Your task to perform on an android device: Toggle the flashlight Image 0: 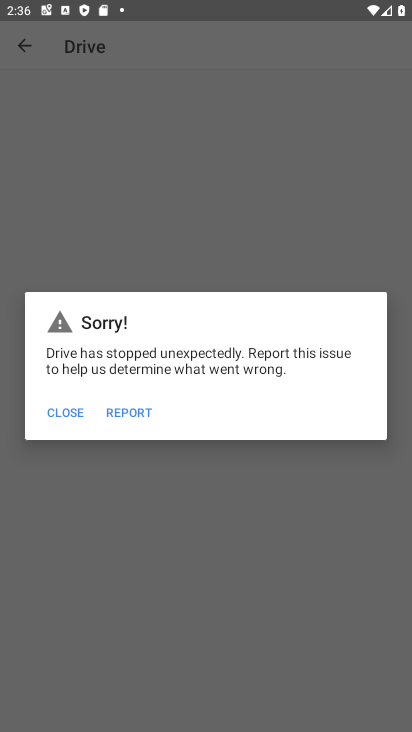
Step 0: press home button
Your task to perform on an android device: Toggle the flashlight Image 1: 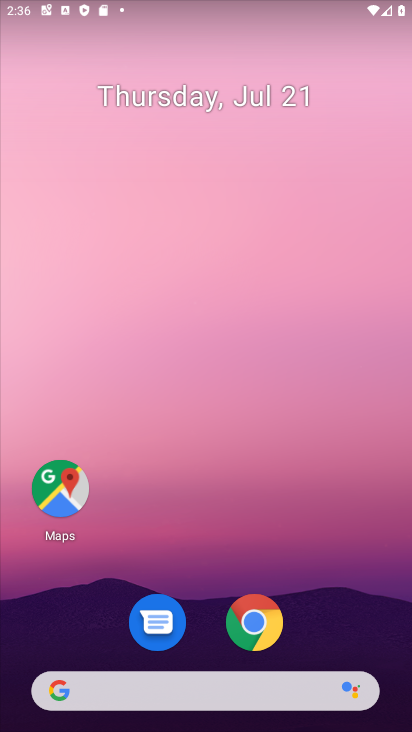
Step 1: drag from (261, 673) to (265, 61)
Your task to perform on an android device: Toggle the flashlight Image 2: 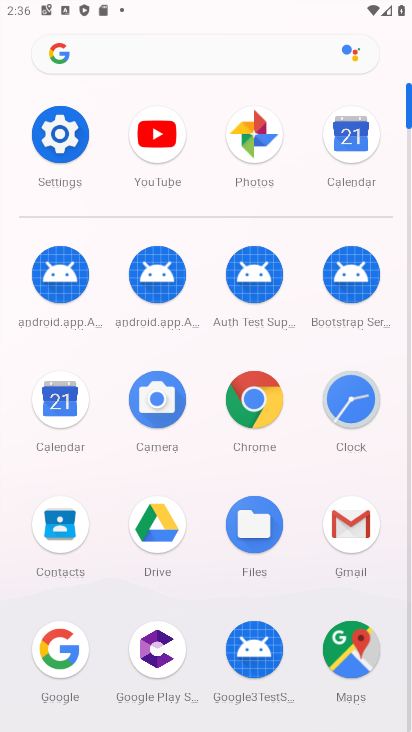
Step 2: click (46, 125)
Your task to perform on an android device: Toggle the flashlight Image 3: 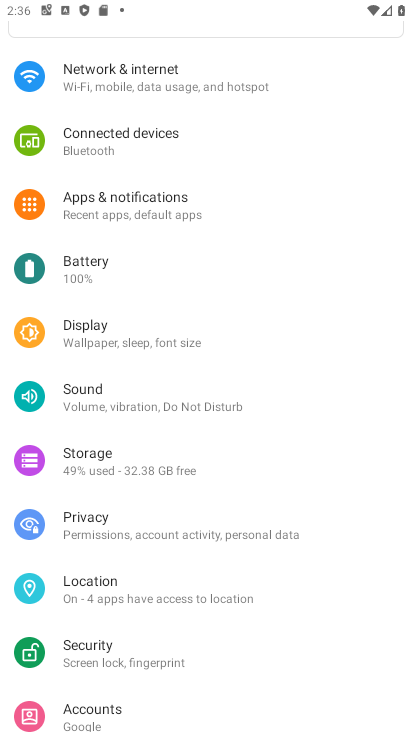
Step 3: drag from (99, 61) to (118, 357)
Your task to perform on an android device: Toggle the flashlight Image 4: 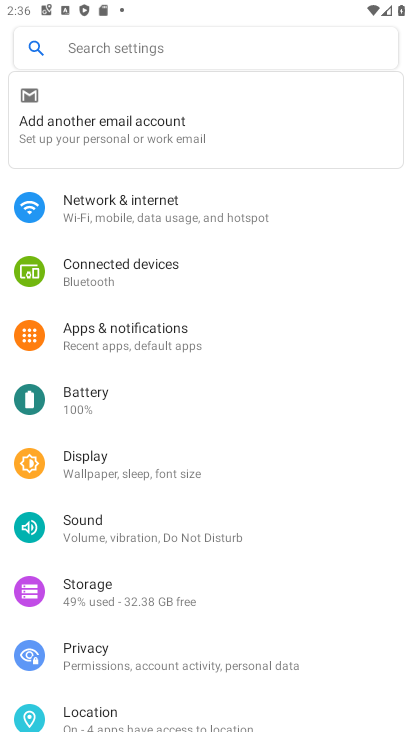
Step 4: click (107, 45)
Your task to perform on an android device: Toggle the flashlight Image 5: 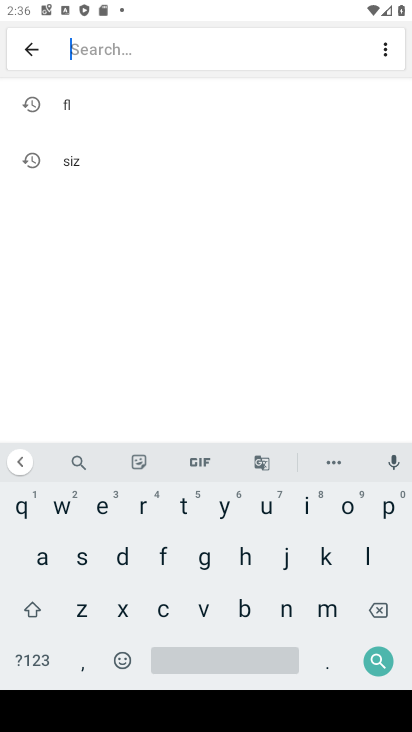
Step 5: click (162, 557)
Your task to perform on an android device: Toggle the flashlight Image 6: 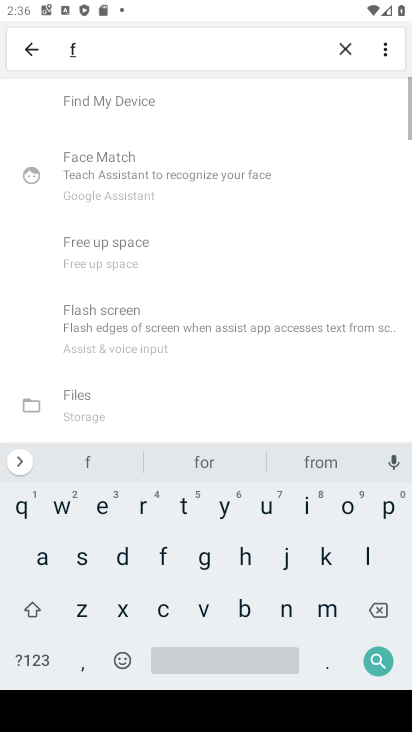
Step 6: click (367, 558)
Your task to perform on an android device: Toggle the flashlight Image 7: 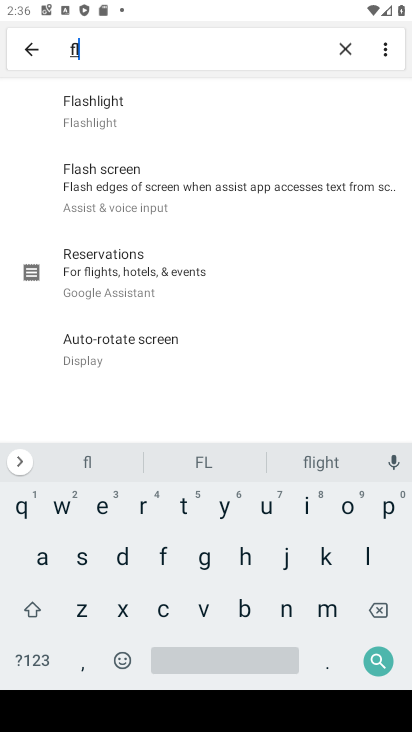
Step 7: click (169, 121)
Your task to perform on an android device: Toggle the flashlight Image 8: 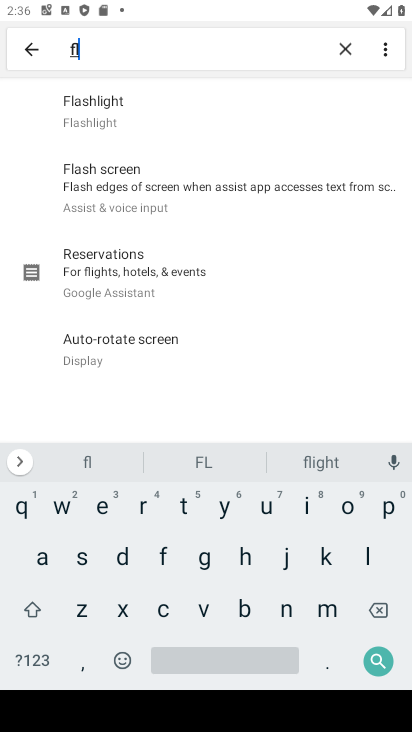
Step 8: task complete